Your task to perform on an android device: How much does a 2 bedroom apartment rent for in New York? Image 0: 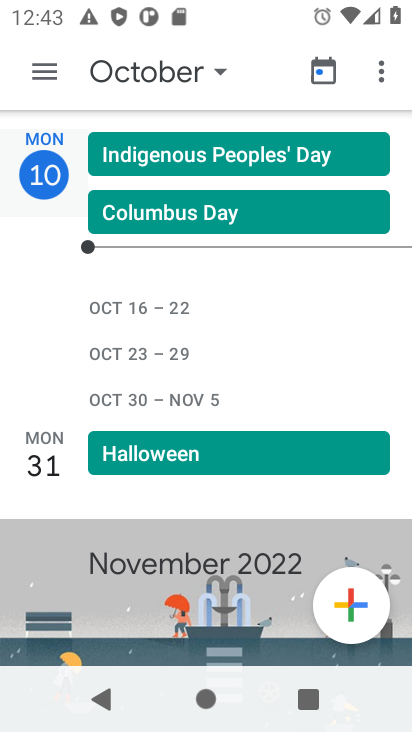
Step 0: press home button
Your task to perform on an android device: How much does a 2 bedroom apartment rent for in New York? Image 1: 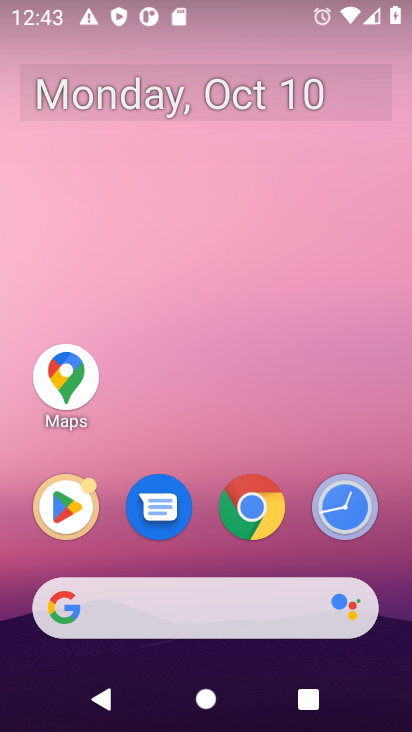
Step 1: click (245, 595)
Your task to perform on an android device: How much does a 2 bedroom apartment rent for in New York? Image 2: 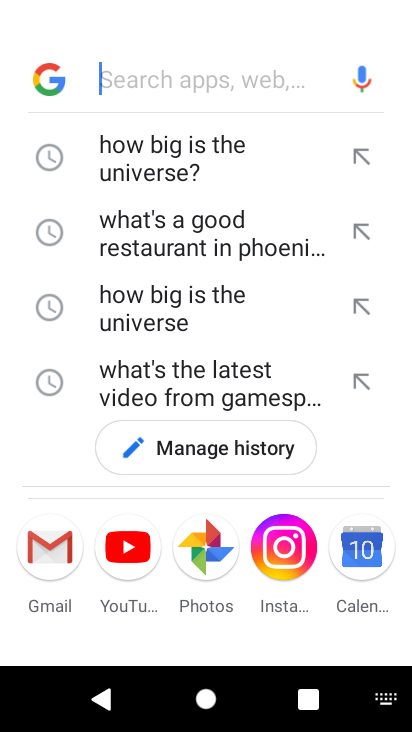
Step 2: type "2 bedroom apartment rent for in New York"
Your task to perform on an android device: How much does a 2 bedroom apartment rent for in New York? Image 3: 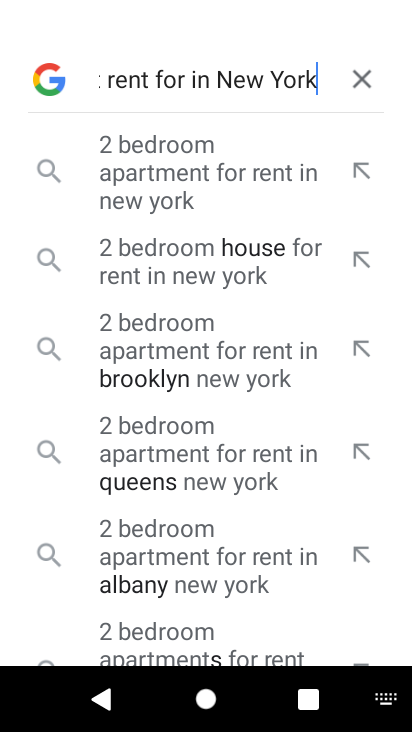
Step 3: press enter
Your task to perform on an android device: How much does a 2 bedroom apartment rent for in New York? Image 4: 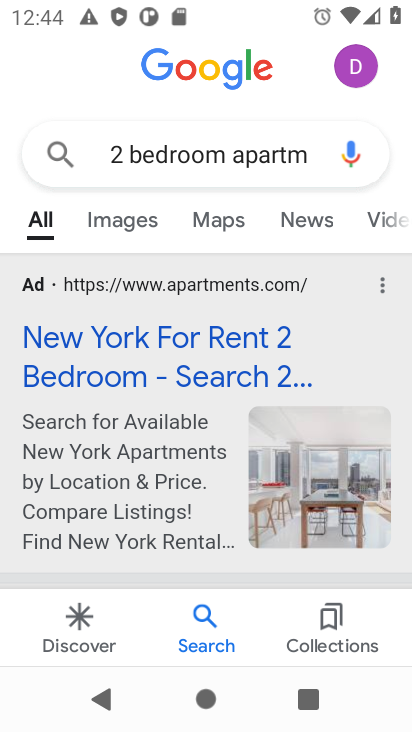
Step 4: click (211, 342)
Your task to perform on an android device: How much does a 2 bedroom apartment rent for in New York? Image 5: 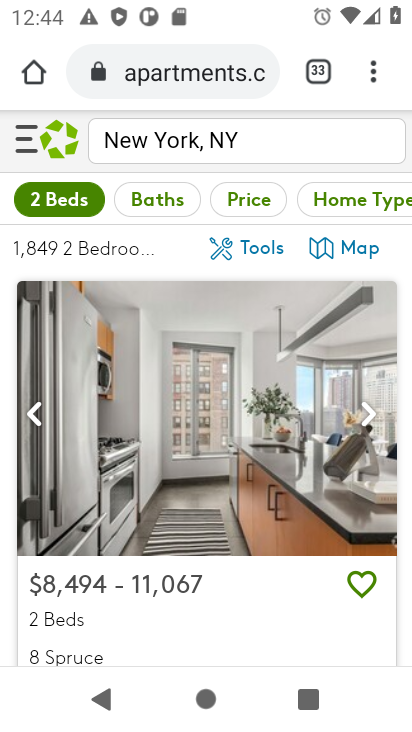
Step 5: task complete